Your task to perform on an android device: turn notification dots off Image 0: 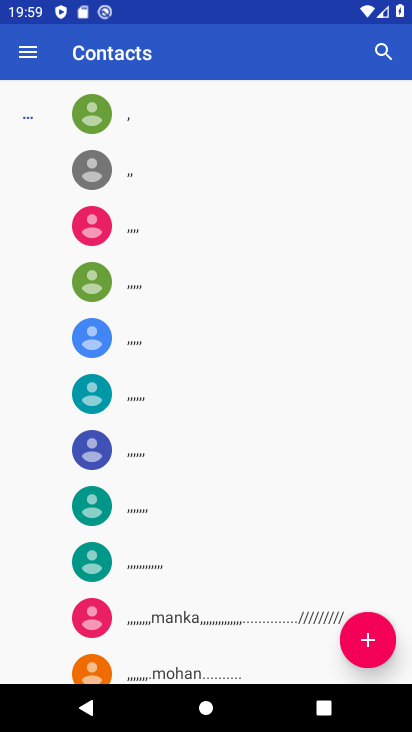
Step 0: press home button
Your task to perform on an android device: turn notification dots off Image 1: 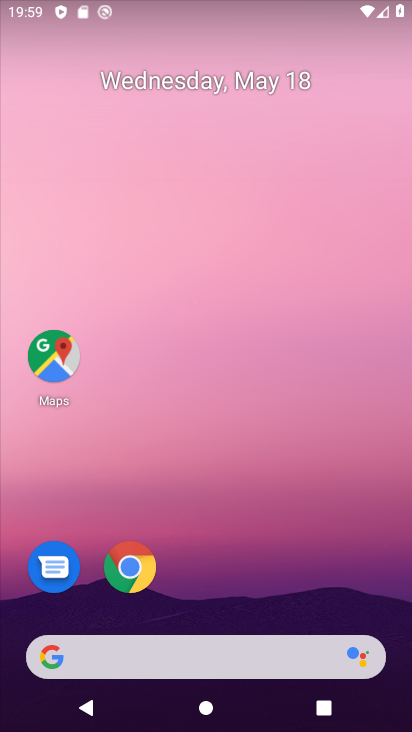
Step 1: drag from (246, 592) to (265, 108)
Your task to perform on an android device: turn notification dots off Image 2: 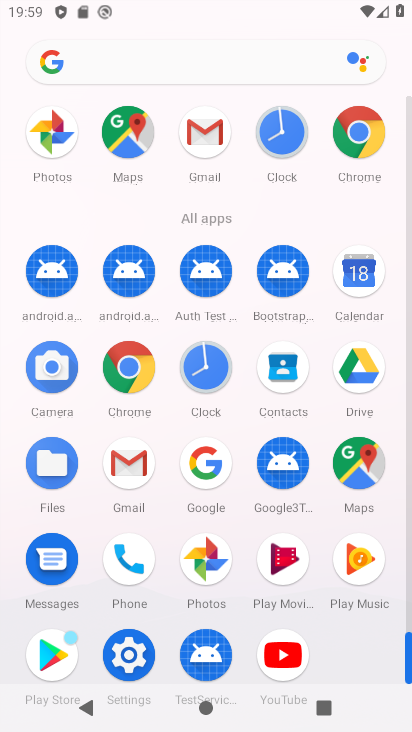
Step 2: click (125, 652)
Your task to perform on an android device: turn notification dots off Image 3: 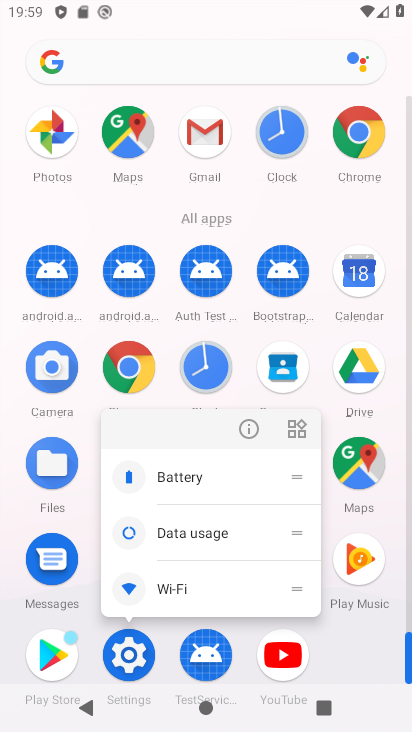
Step 3: click (120, 654)
Your task to perform on an android device: turn notification dots off Image 4: 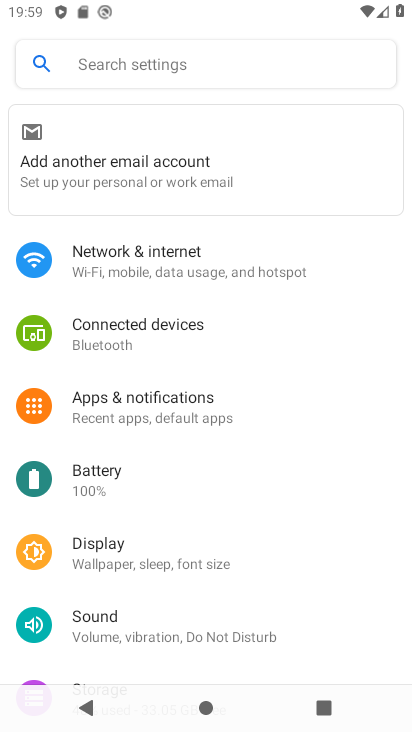
Step 4: click (189, 416)
Your task to perform on an android device: turn notification dots off Image 5: 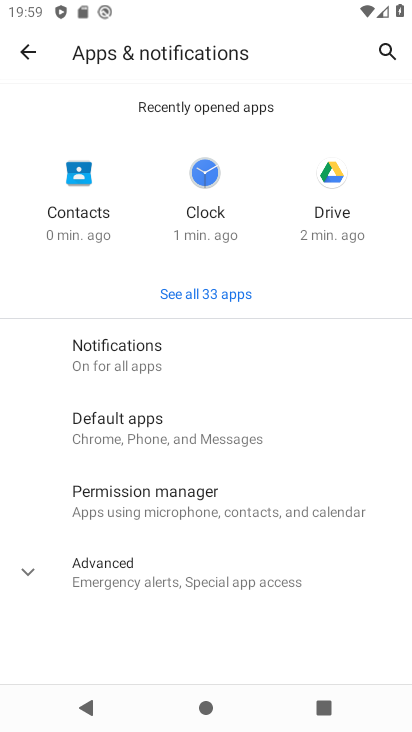
Step 5: click (144, 371)
Your task to perform on an android device: turn notification dots off Image 6: 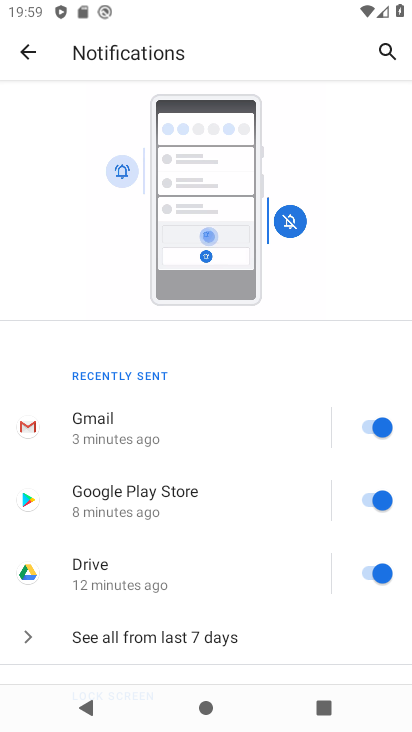
Step 6: drag from (233, 528) to (216, 253)
Your task to perform on an android device: turn notification dots off Image 7: 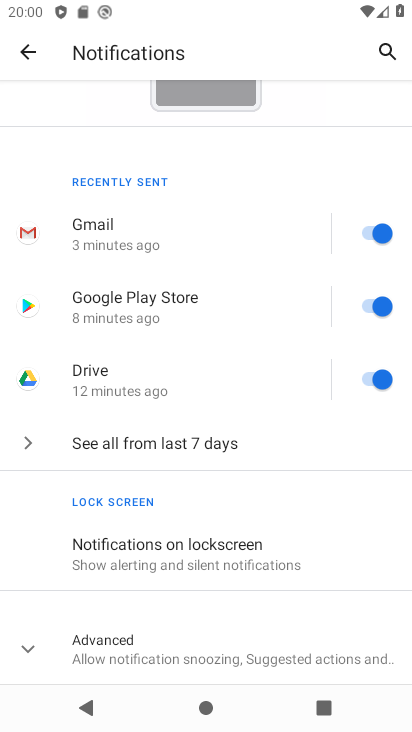
Step 7: drag from (160, 590) to (154, 395)
Your task to perform on an android device: turn notification dots off Image 8: 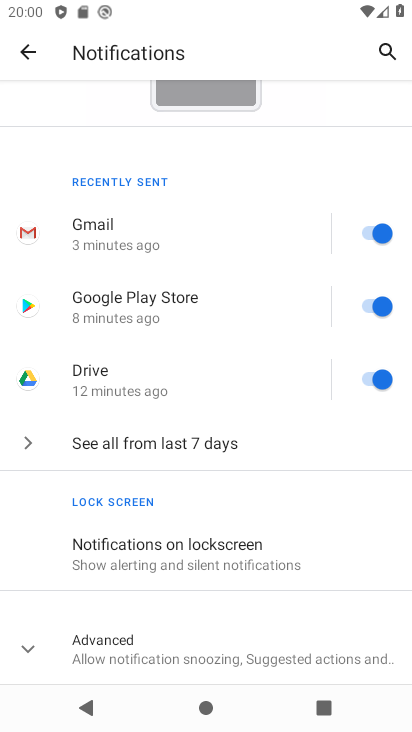
Step 8: click (27, 645)
Your task to perform on an android device: turn notification dots off Image 9: 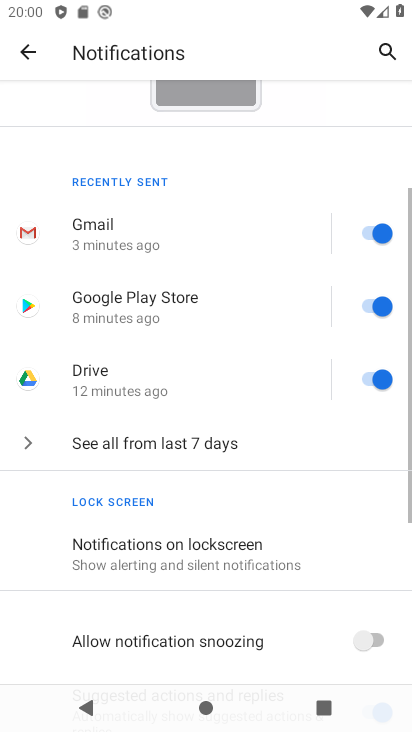
Step 9: drag from (221, 629) to (195, 269)
Your task to perform on an android device: turn notification dots off Image 10: 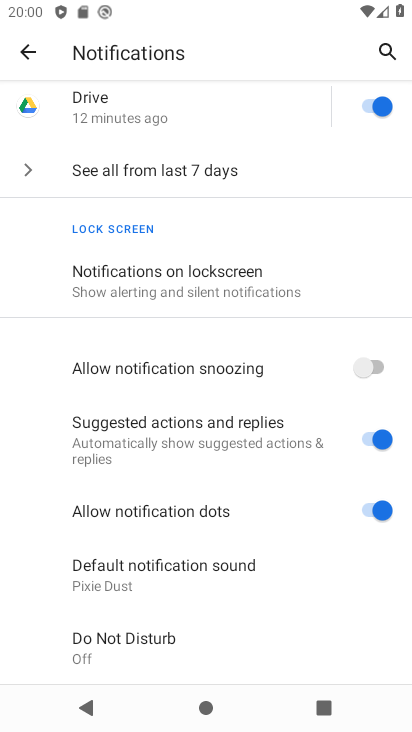
Step 10: click (364, 499)
Your task to perform on an android device: turn notification dots off Image 11: 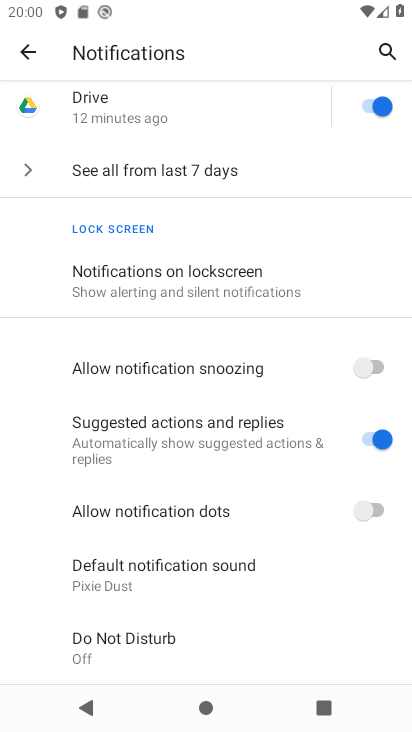
Step 11: task complete